Your task to perform on an android device: add a contact in the contacts app Image 0: 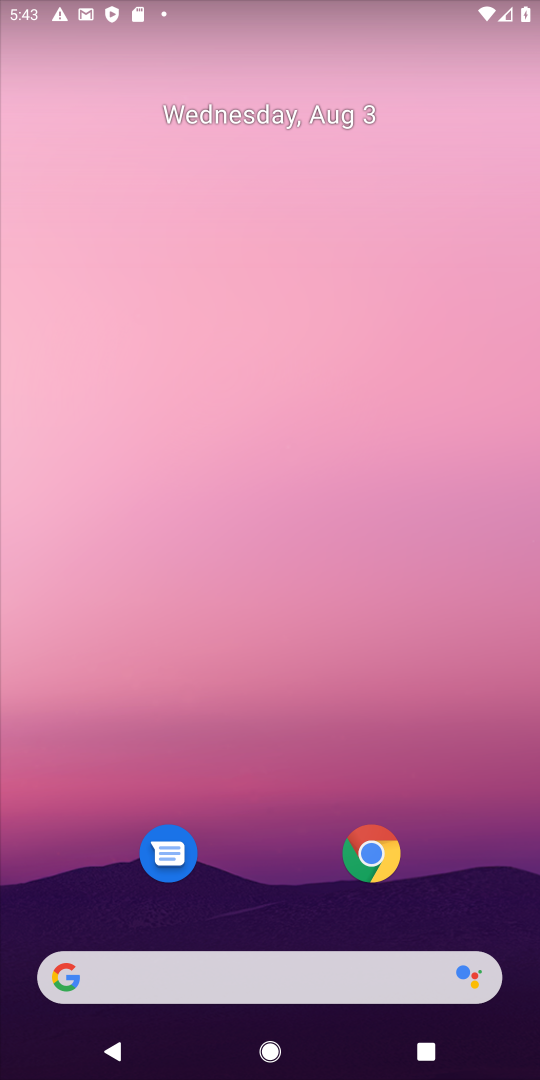
Step 0: drag from (458, 888) to (371, 105)
Your task to perform on an android device: add a contact in the contacts app Image 1: 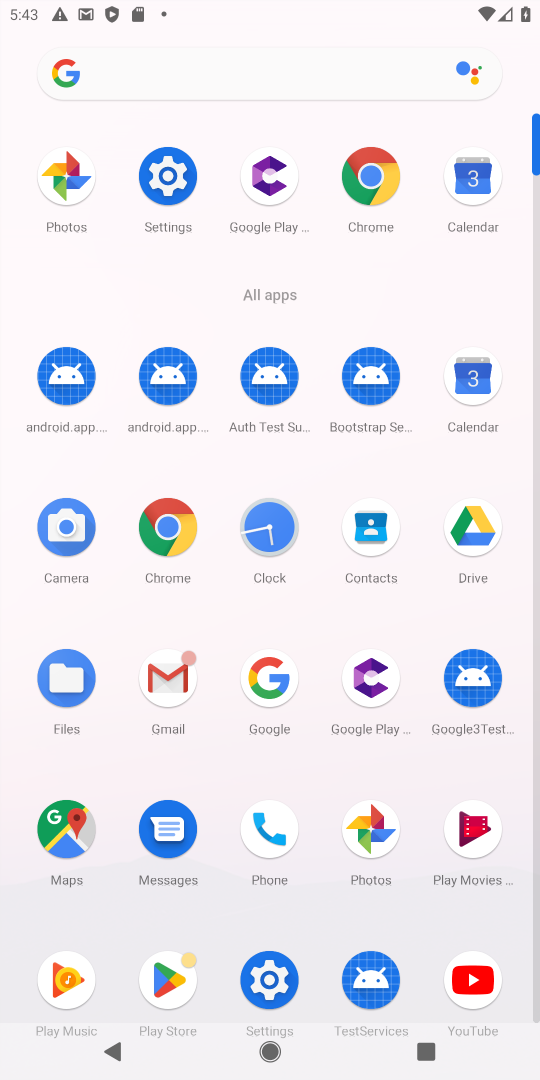
Step 1: click (366, 529)
Your task to perform on an android device: add a contact in the contacts app Image 2: 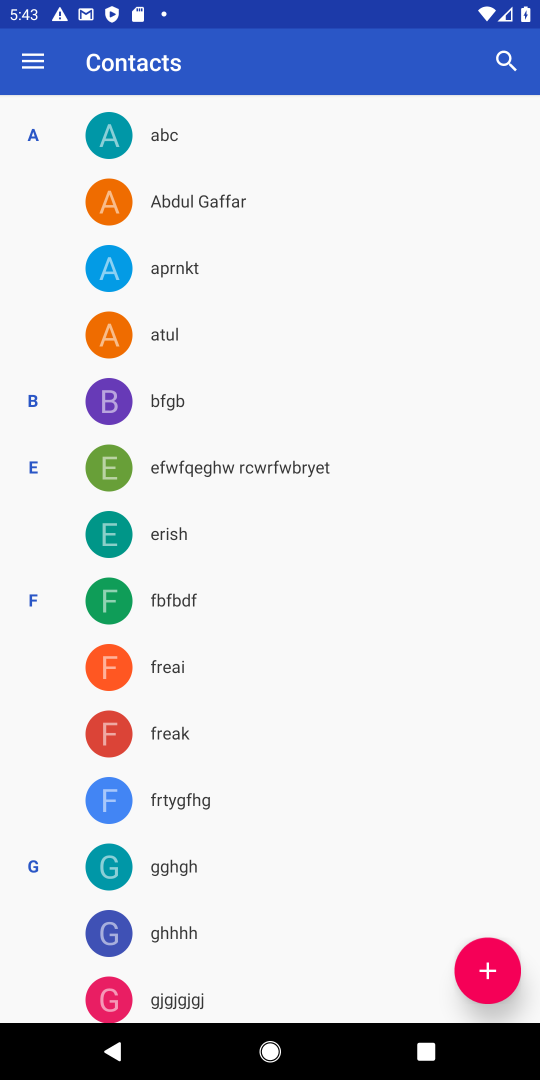
Step 2: click (479, 963)
Your task to perform on an android device: add a contact in the contacts app Image 3: 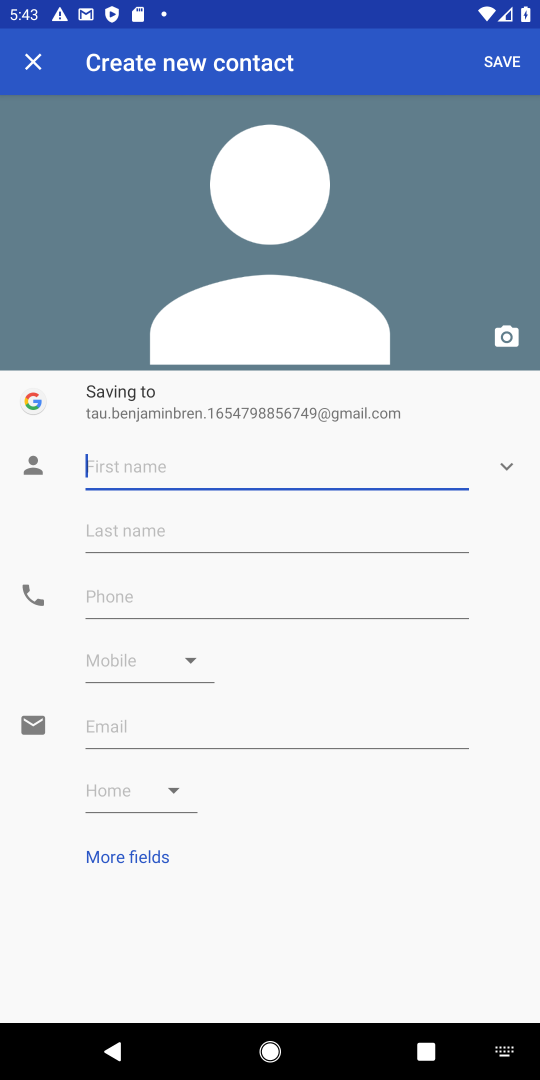
Step 3: type "opp"
Your task to perform on an android device: add a contact in the contacts app Image 4: 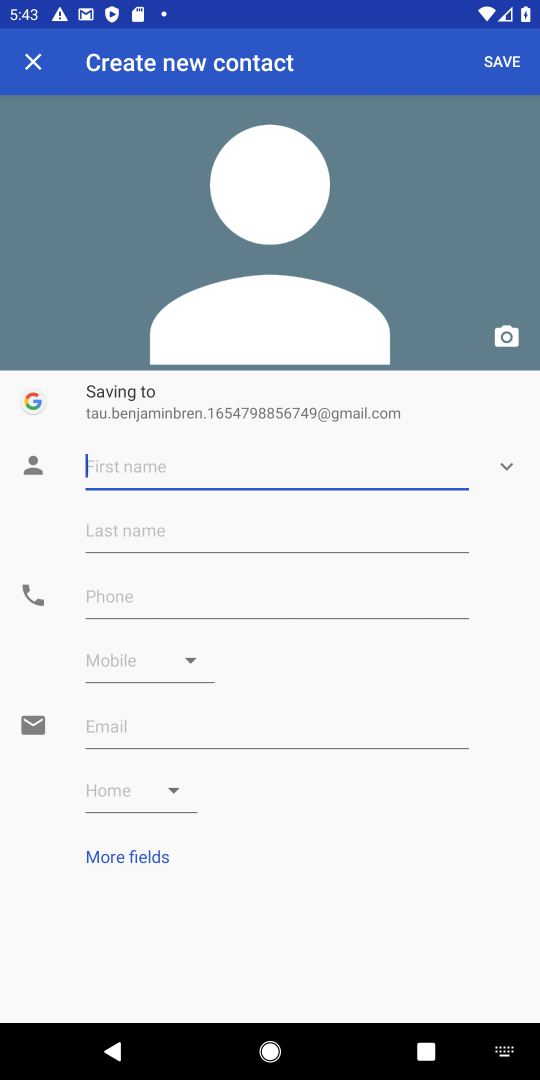
Step 4: click (278, 598)
Your task to perform on an android device: add a contact in the contacts app Image 5: 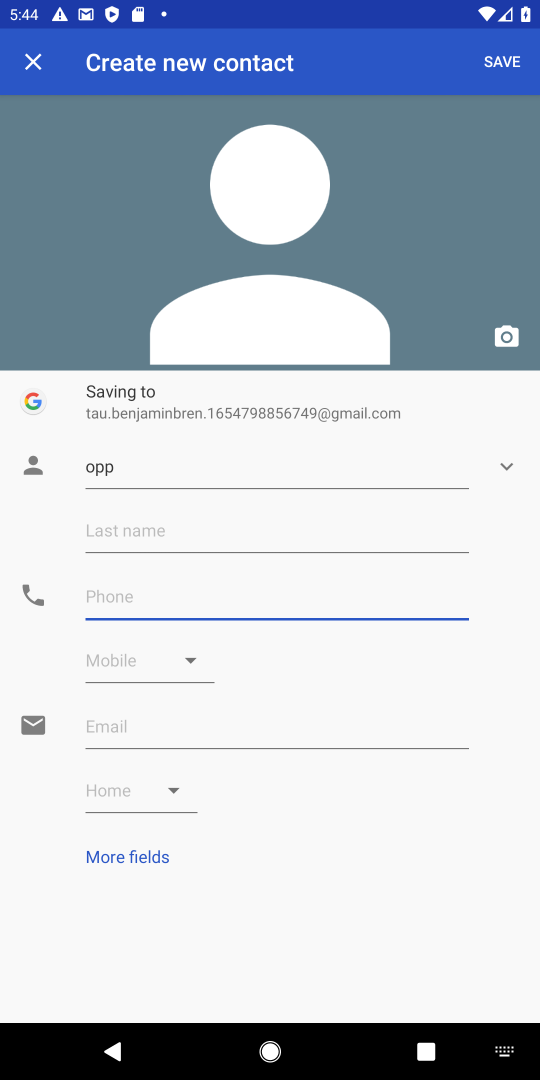
Step 5: type "9090909090"
Your task to perform on an android device: add a contact in the contacts app Image 6: 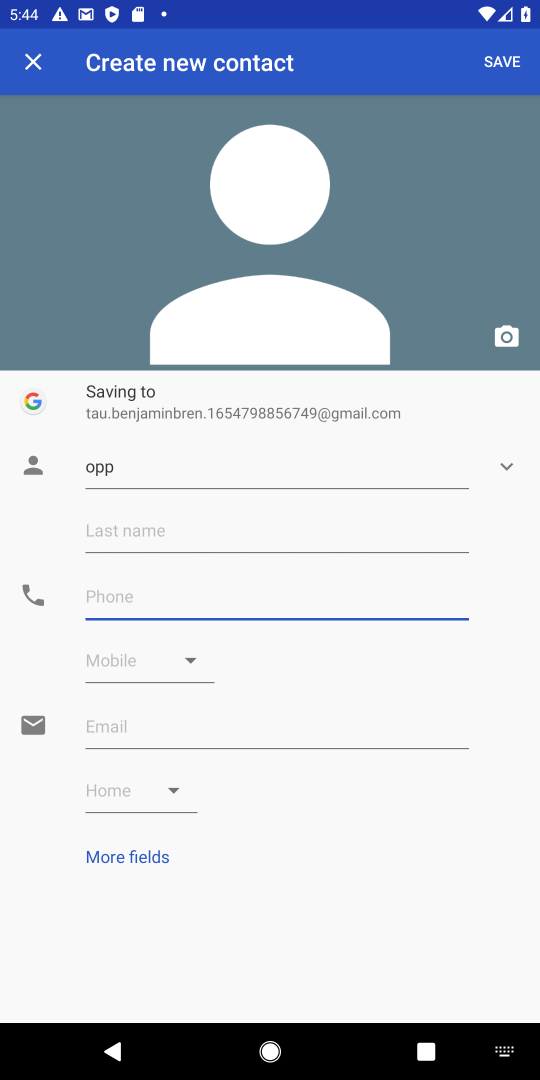
Step 6: click (510, 57)
Your task to perform on an android device: add a contact in the contacts app Image 7: 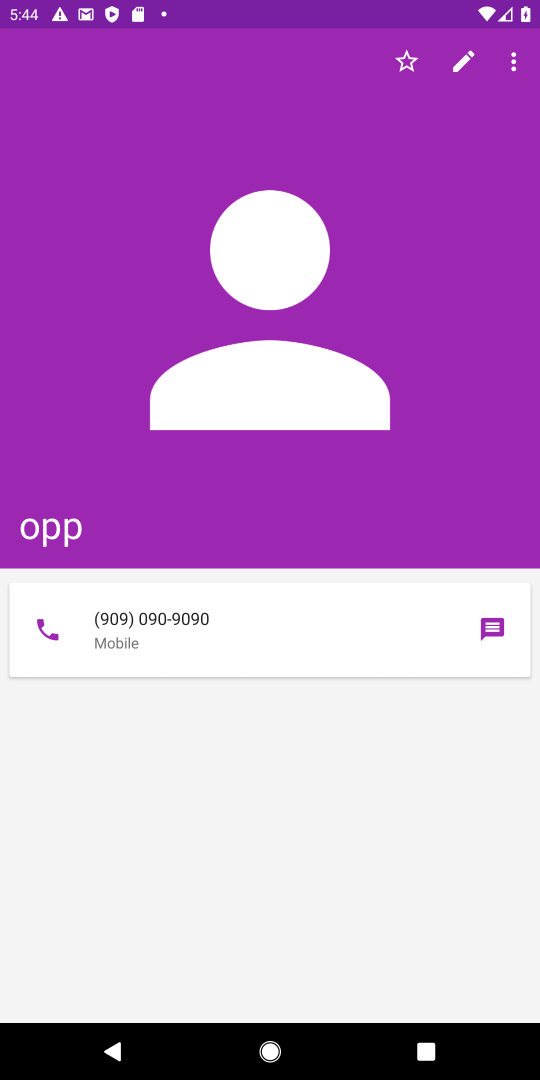
Step 7: task complete